Your task to perform on an android device: remove spam from my inbox in the gmail app Image 0: 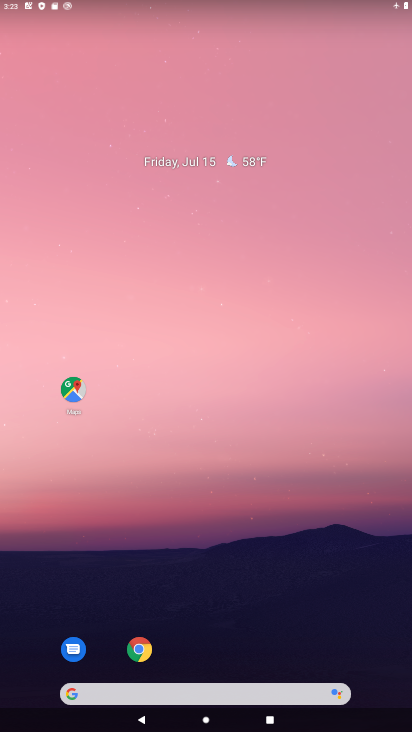
Step 0: drag from (237, 721) to (255, 166)
Your task to perform on an android device: remove spam from my inbox in the gmail app Image 1: 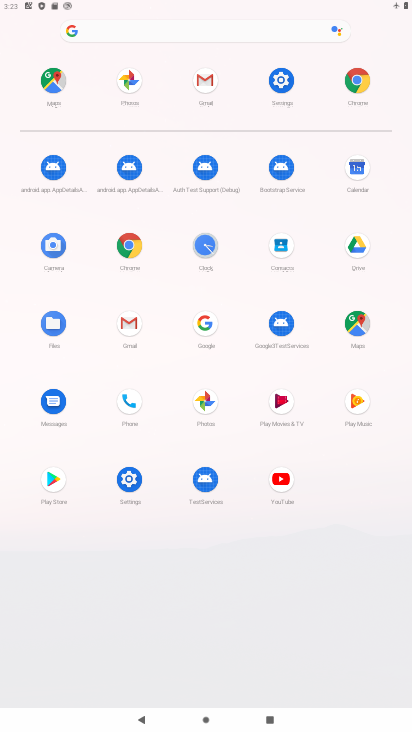
Step 1: click (123, 327)
Your task to perform on an android device: remove spam from my inbox in the gmail app Image 2: 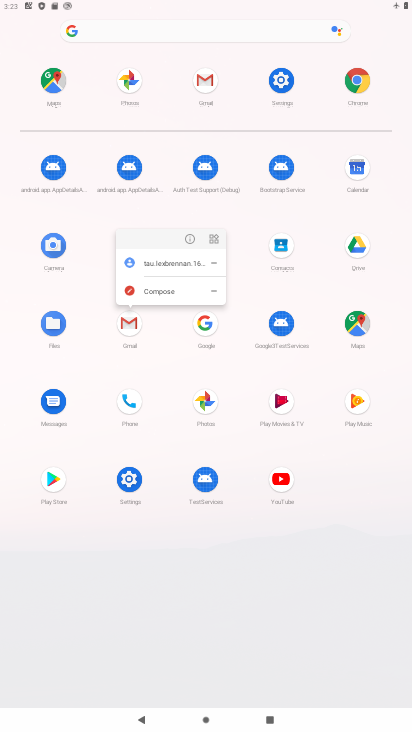
Step 2: click (123, 327)
Your task to perform on an android device: remove spam from my inbox in the gmail app Image 3: 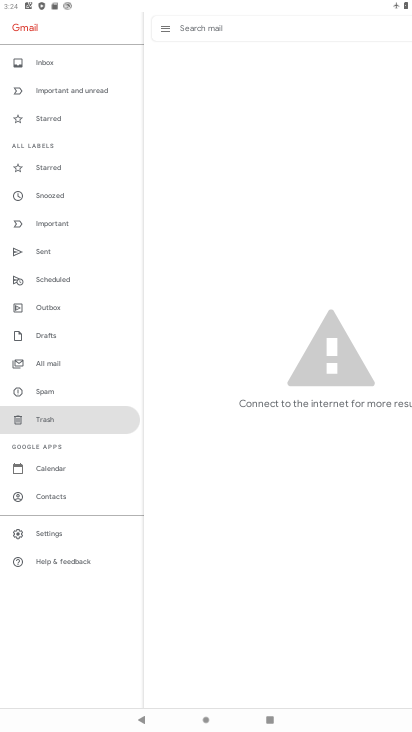
Step 3: click (40, 62)
Your task to perform on an android device: remove spam from my inbox in the gmail app Image 4: 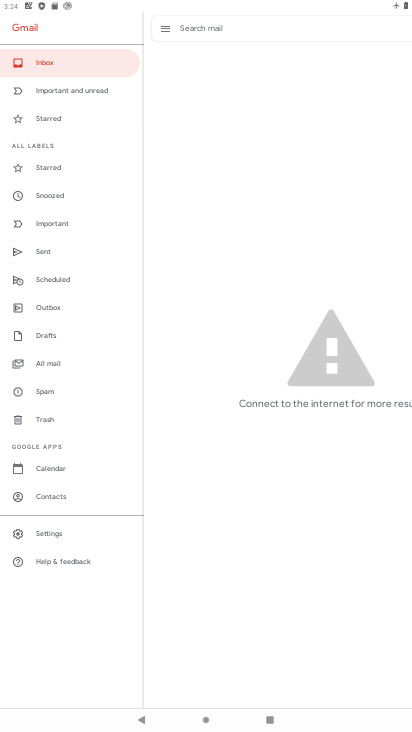
Step 4: task complete